Your task to perform on an android device: When is my next meeting? Image 0: 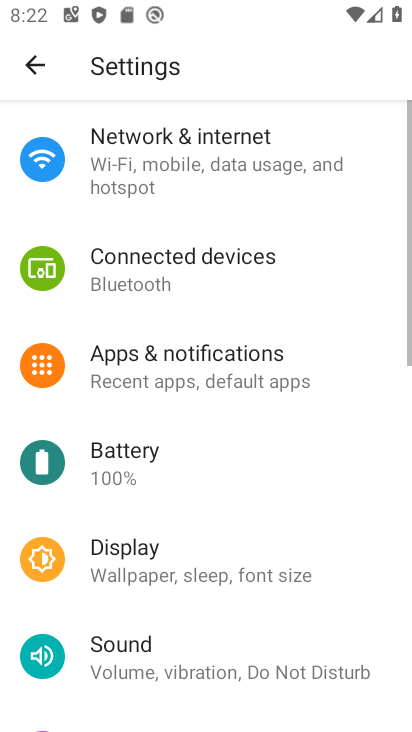
Step 0: press home button
Your task to perform on an android device: When is my next meeting? Image 1: 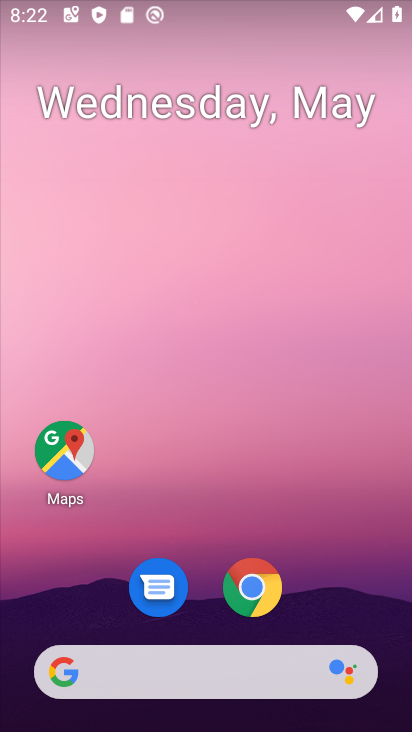
Step 1: drag from (331, 617) to (326, 106)
Your task to perform on an android device: When is my next meeting? Image 2: 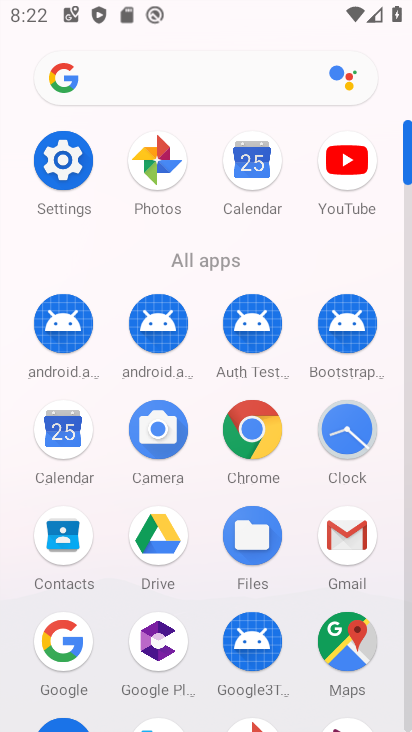
Step 2: click (47, 432)
Your task to perform on an android device: When is my next meeting? Image 3: 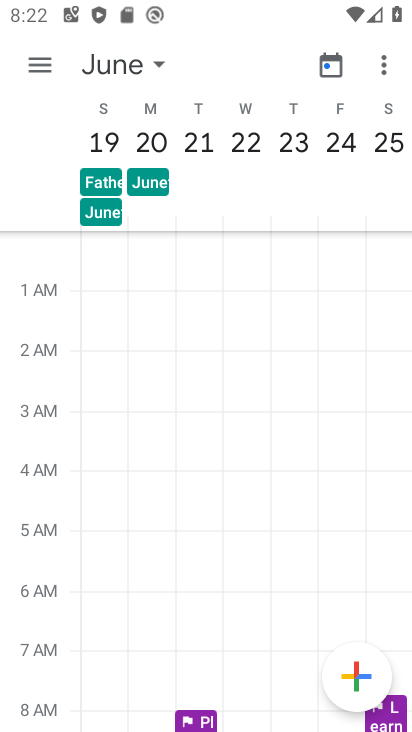
Step 3: click (46, 64)
Your task to perform on an android device: When is my next meeting? Image 4: 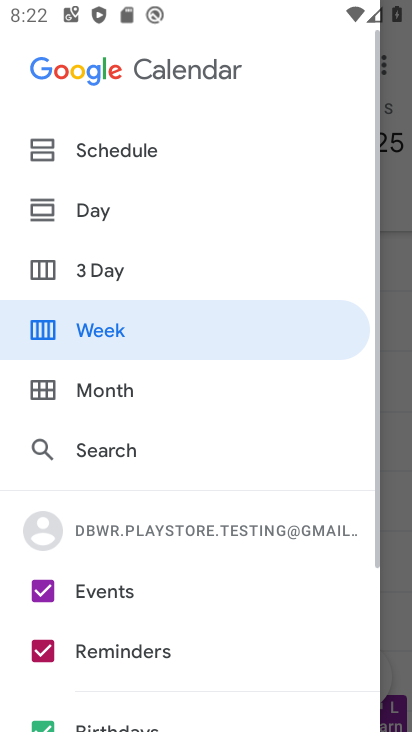
Step 4: click (98, 149)
Your task to perform on an android device: When is my next meeting? Image 5: 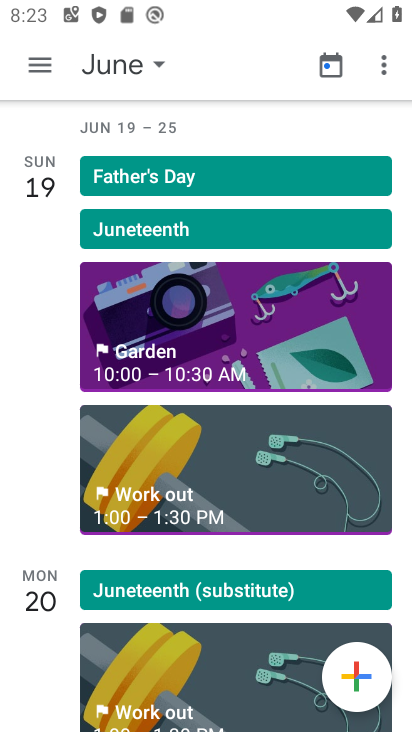
Step 5: click (151, 64)
Your task to perform on an android device: When is my next meeting? Image 6: 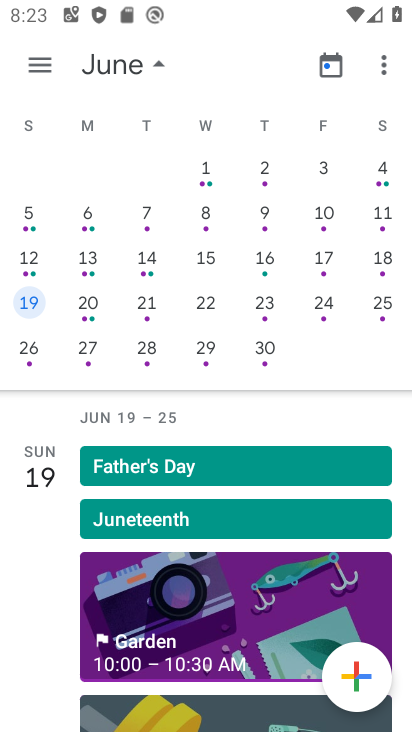
Step 6: drag from (46, 259) to (389, 252)
Your task to perform on an android device: When is my next meeting? Image 7: 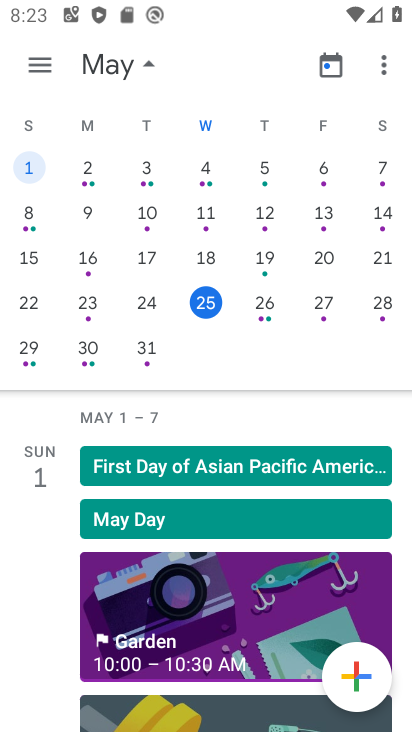
Step 7: click (212, 303)
Your task to perform on an android device: When is my next meeting? Image 8: 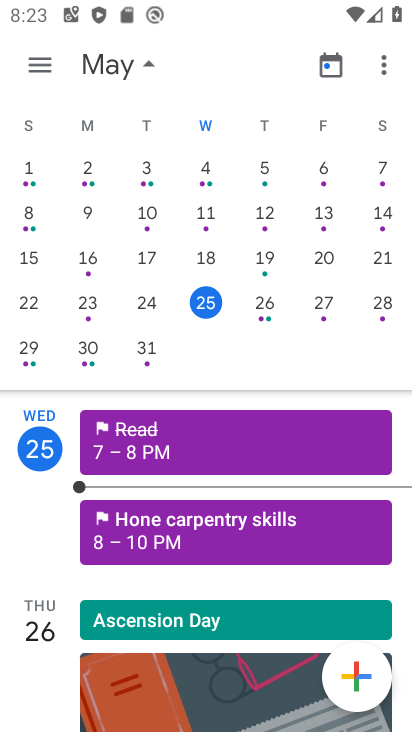
Step 8: task complete